Your task to perform on an android device: turn pop-ups off in chrome Image 0: 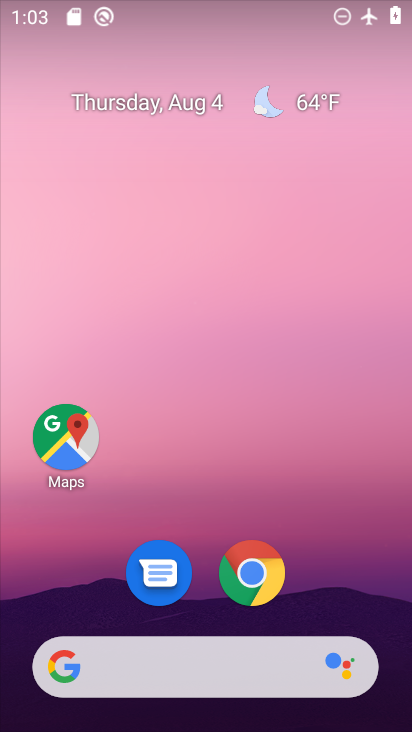
Step 0: drag from (350, 531) to (293, 178)
Your task to perform on an android device: turn pop-ups off in chrome Image 1: 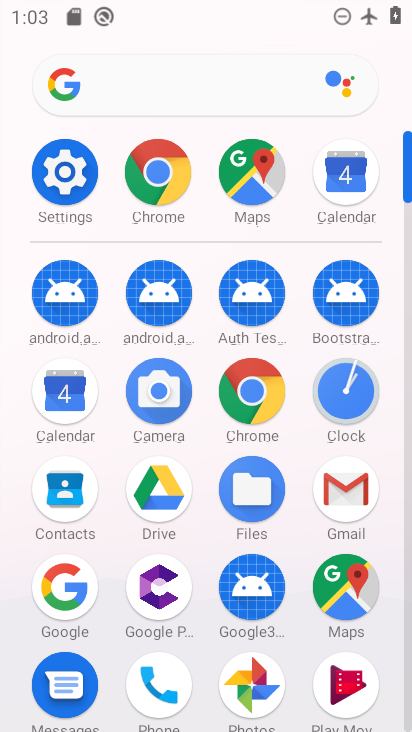
Step 1: click (246, 384)
Your task to perform on an android device: turn pop-ups off in chrome Image 2: 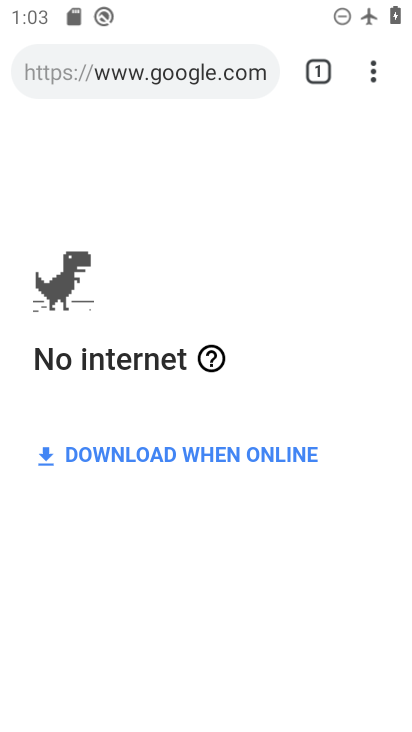
Step 2: drag from (382, 79) to (200, 585)
Your task to perform on an android device: turn pop-ups off in chrome Image 3: 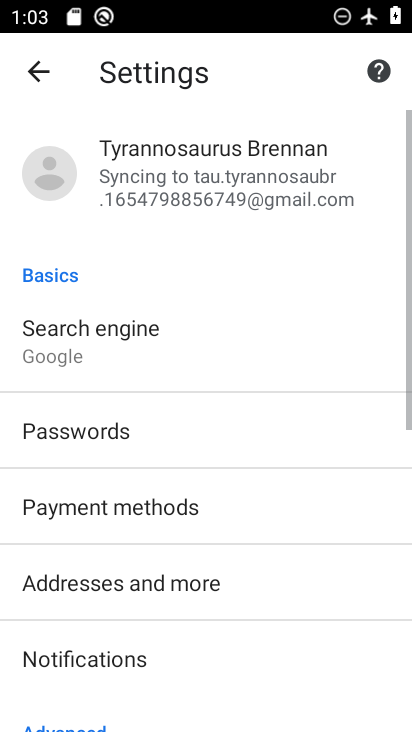
Step 3: drag from (285, 576) to (277, 132)
Your task to perform on an android device: turn pop-ups off in chrome Image 4: 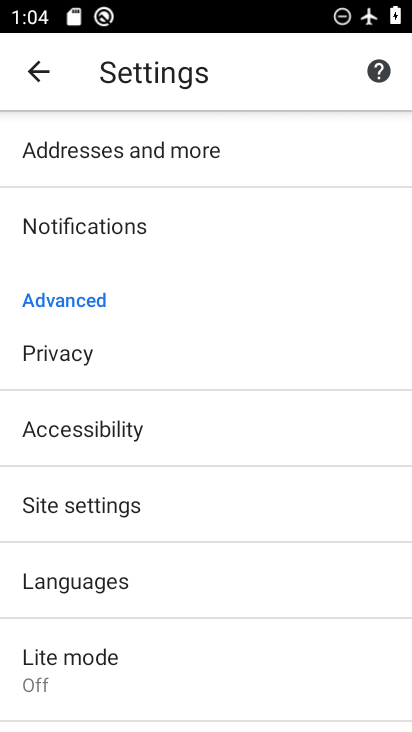
Step 4: click (134, 504)
Your task to perform on an android device: turn pop-ups off in chrome Image 5: 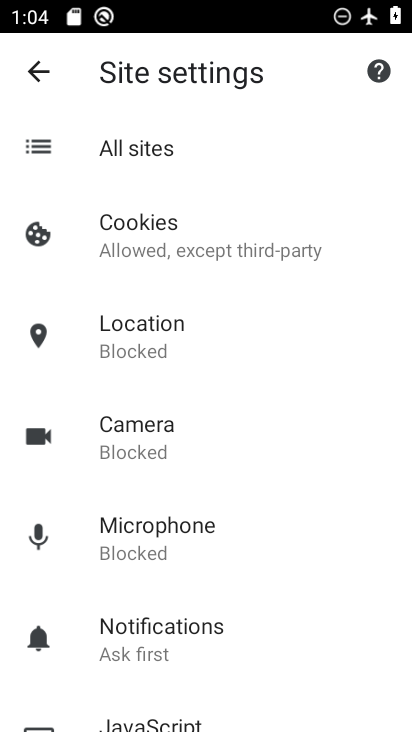
Step 5: drag from (278, 589) to (307, 207)
Your task to perform on an android device: turn pop-ups off in chrome Image 6: 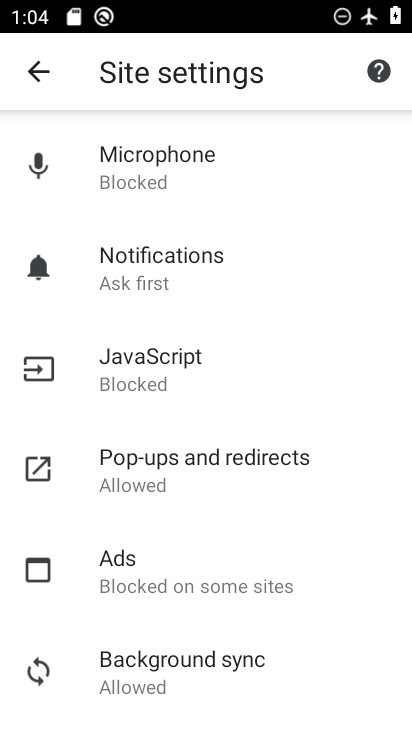
Step 6: click (206, 459)
Your task to perform on an android device: turn pop-ups off in chrome Image 7: 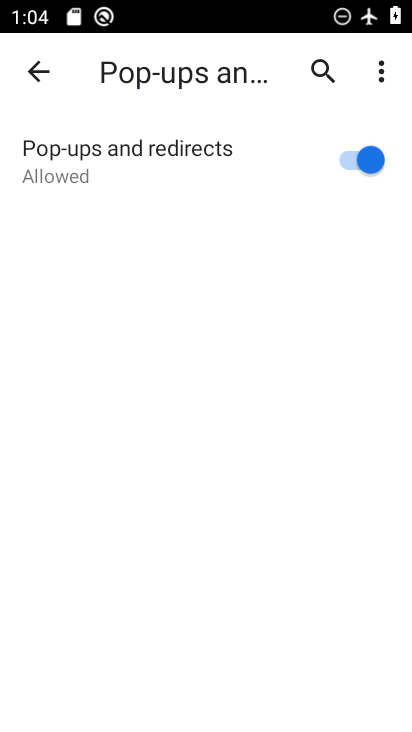
Step 7: click (374, 170)
Your task to perform on an android device: turn pop-ups off in chrome Image 8: 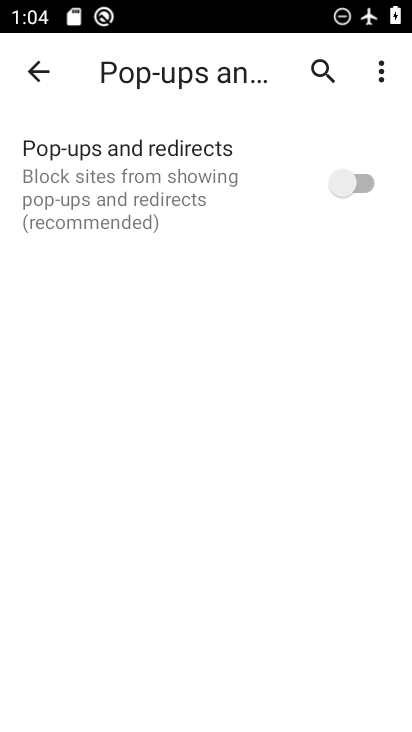
Step 8: task complete